Your task to perform on an android device: Go to battery settings Image 0: 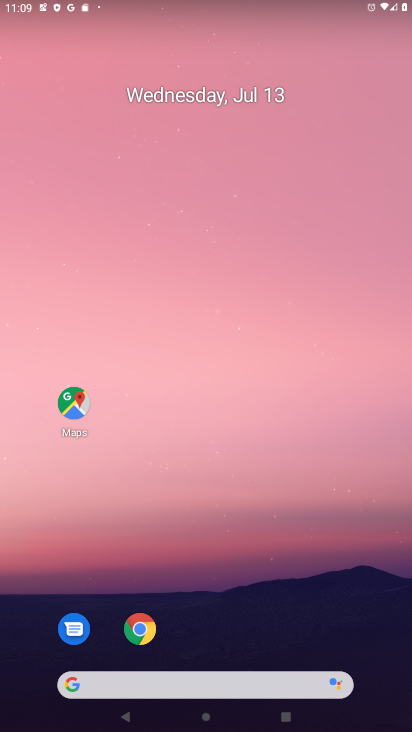
Step 0: drag from (299, 640) to (254, 127)
Your task to perform on an android device: Go to battery settings Image 1: 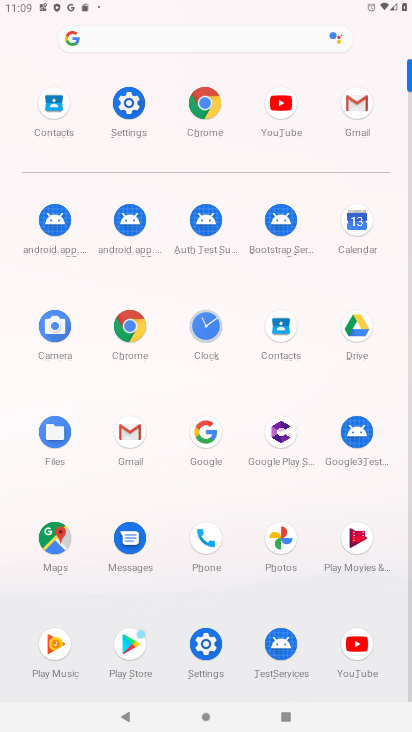
Step 1: click (141, 102)
Your task to perform on an android device: Go to battery settings Image 2: 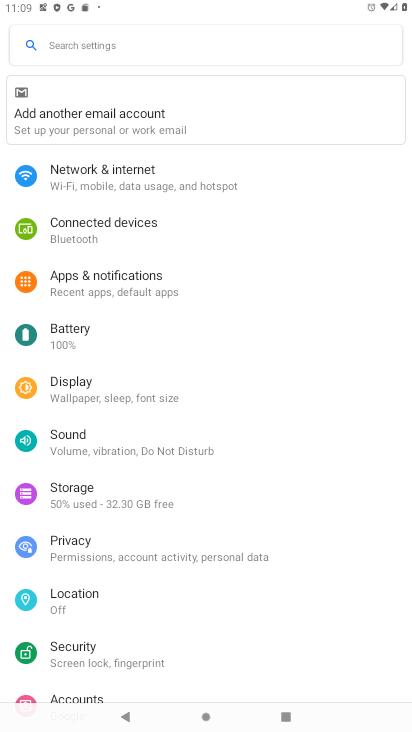
Step 2: click (118, 326)
Your task to perform on an android device: Go to battery settings Image 3: 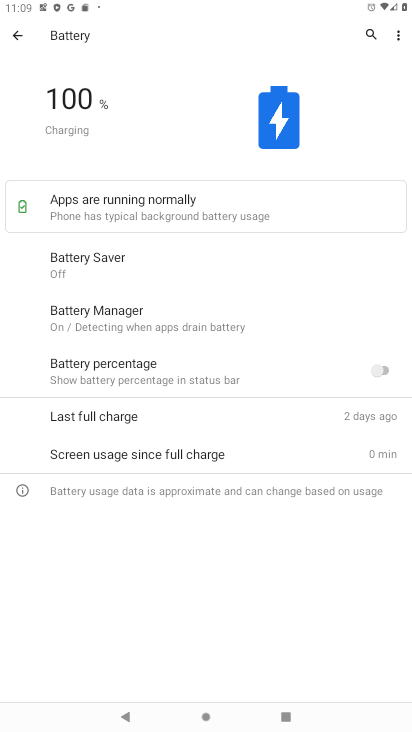
Step 3: task complete